Your task to perform on an android device: Open calendar and show me the first week of next month Image 0: 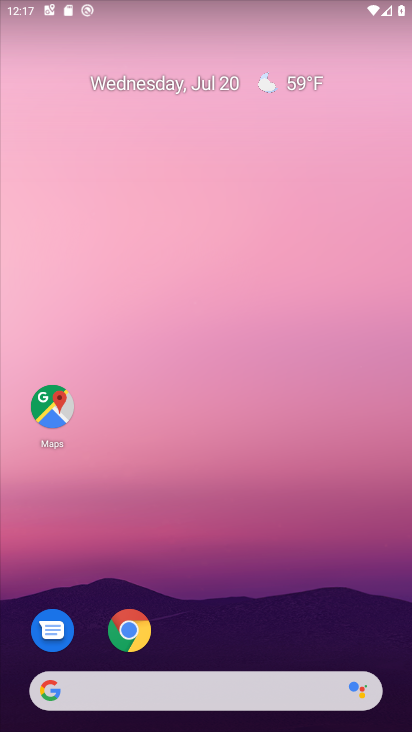
Step 0: drag from (386, 644) to (339, 145)
Your task to perform on an android device: Open calendar and show me the first week of next month Image 1: 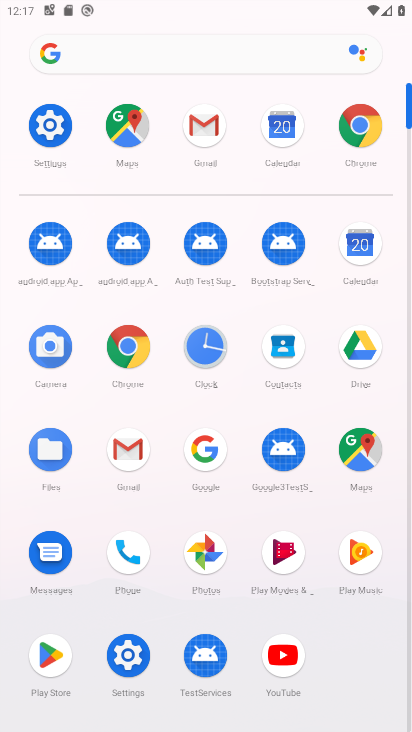
Step 1: click (359, 242)
Your task to perform on an android device: Open calendar and show me the first week of next month Image 2: 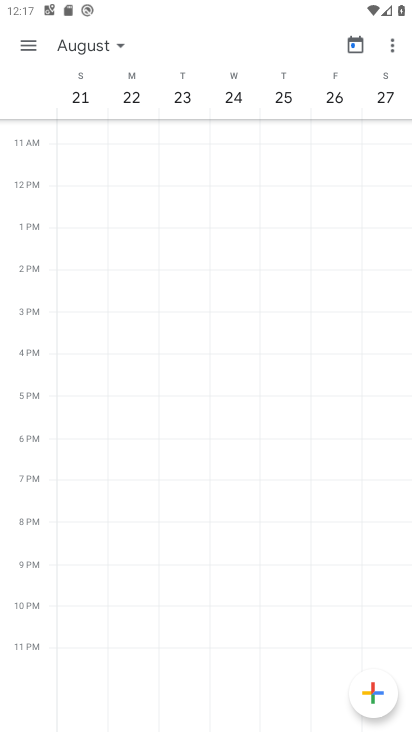
Step 2: click (114, 42)
Your task to perform on an android device: Open calendar and show me the first week of next month Image 3: 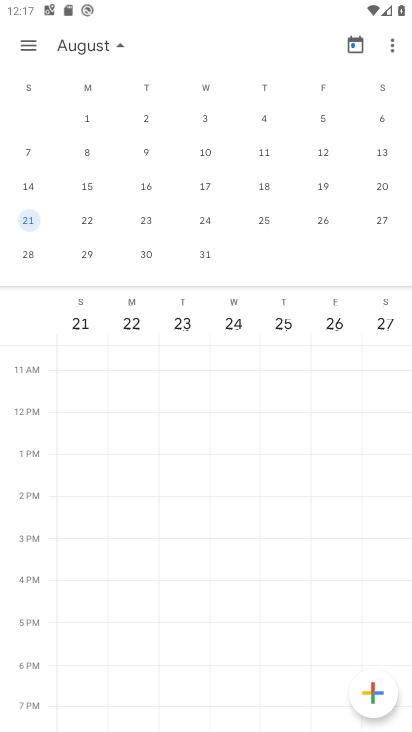
Step 3: click (26, 148)
Your task to perform on an android device: Open calendar and show me the first week of next month Image 4: 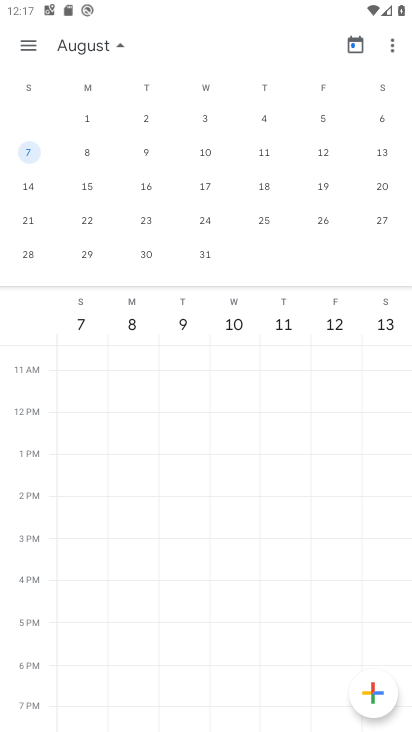
Step 4: task complete